Your task to perform on an android device: Open battery settings Image 0: 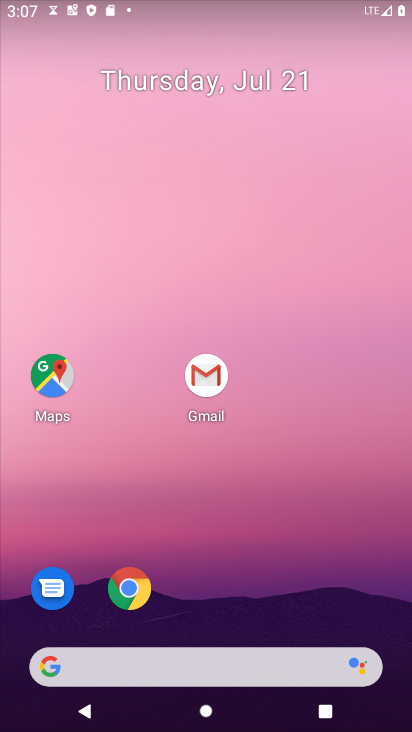
Step 0: drag from (209, 635) to (266, 159)
Your task to perform on an android device: Open battery settings Image 1: 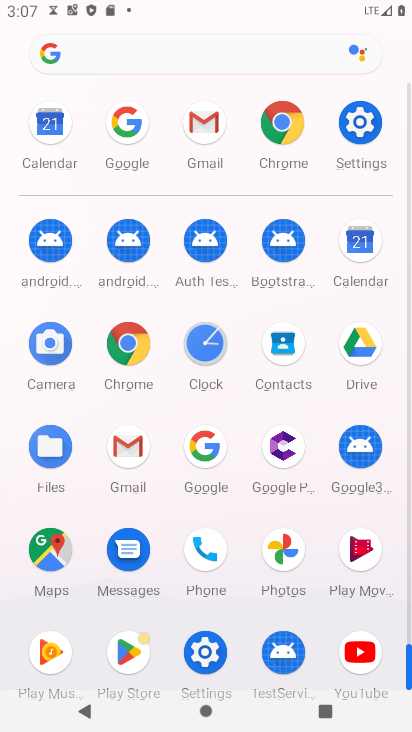
Step 1: click (197, 658)
Your task to perform on an android device: Open battery settings Image 2: 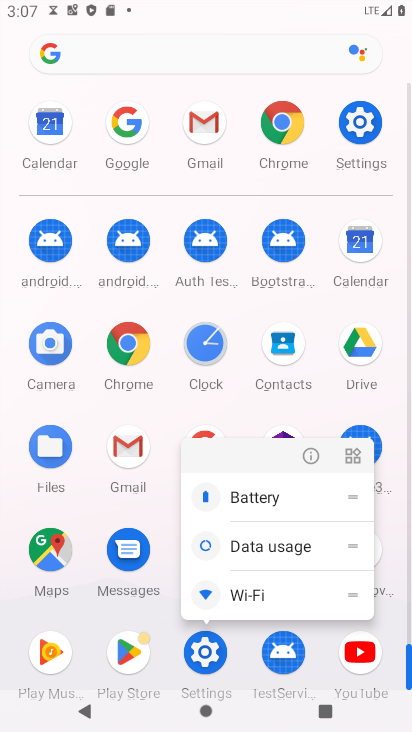
Step 2: click (313, 460)
Your task to perform on an android device: Open battery settings Image 3: 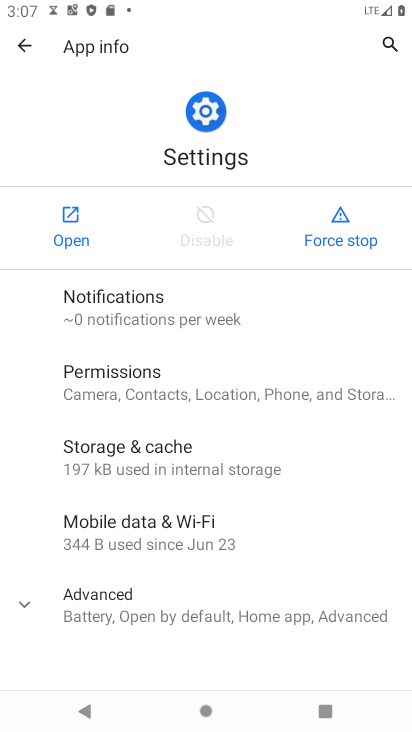
Step 3: click (86, 244)
Your task to perform on an android device: Open battery settings Image 4: 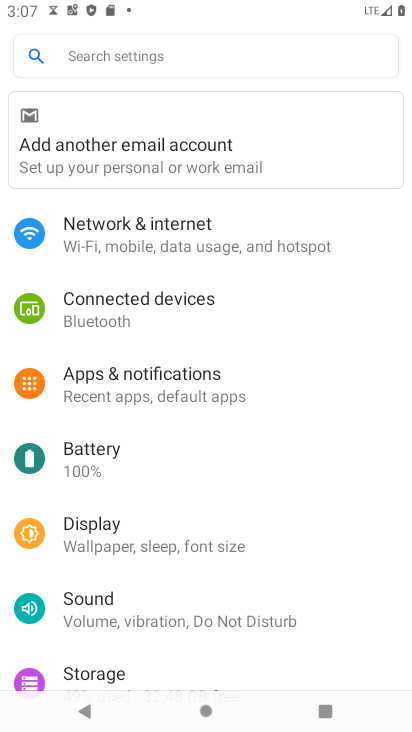
Step 4: click (102, 447)
Your task to perform on an android device: Open battery settings Image 5: 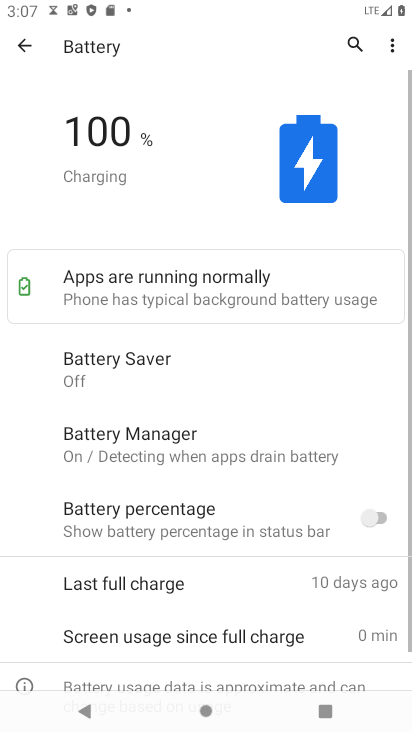
Step 5: task complete